Your task to perform on an android device: Open network settings Image 0: 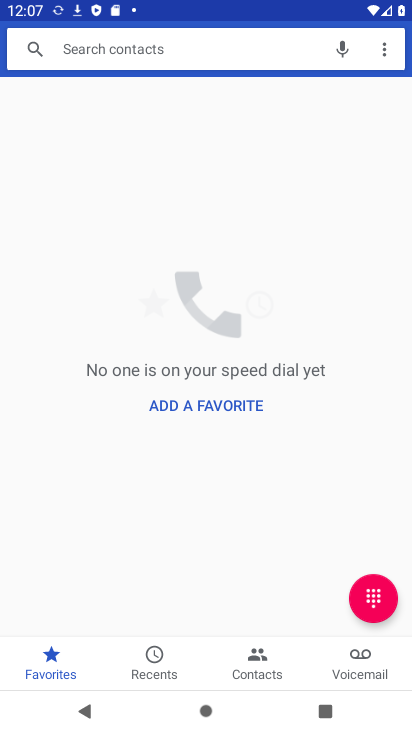
Step 0: press home button
Your task to perform on an android device: Open network settings Image 1: 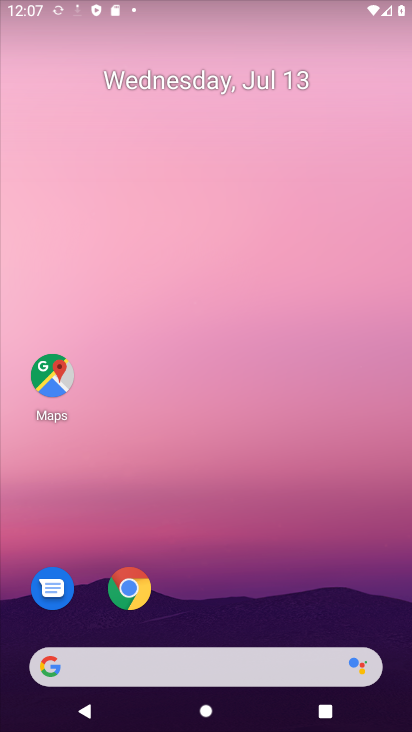
Step 1: drag from (206, 625) to (207, 147)
Your task to perform on an android device: Open network settings Image 2: 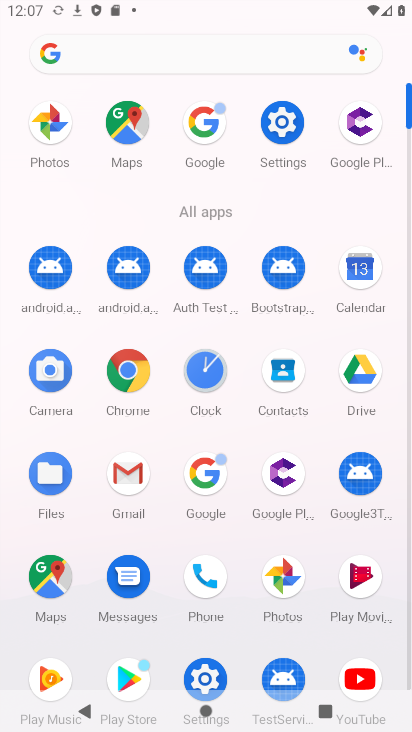
Step 2: click (282, 126)
Your task to perform on an android device: Open network settings Image 3: 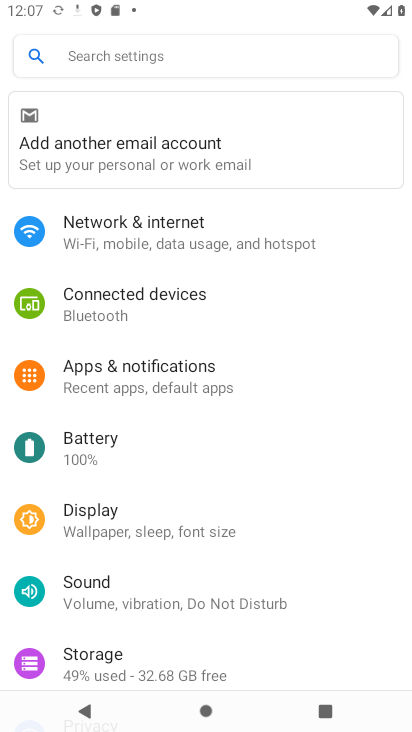
Step 3: click (195, 229)
Your task to perform on an android device: Open network settings Image 4: 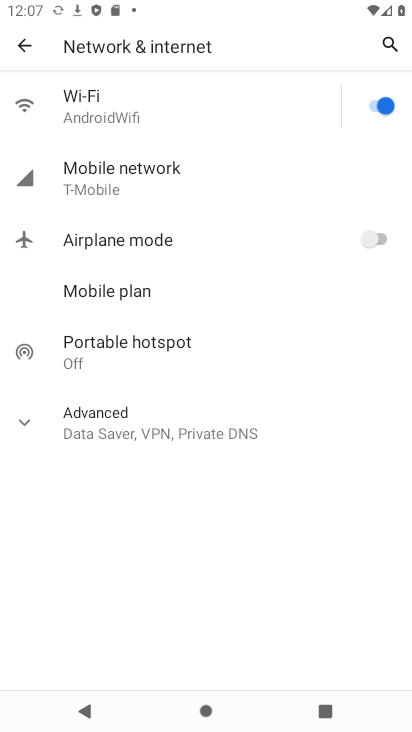
Step 4: click (124, 416)
Your task to perform on an android device: Open network settings Image 5: 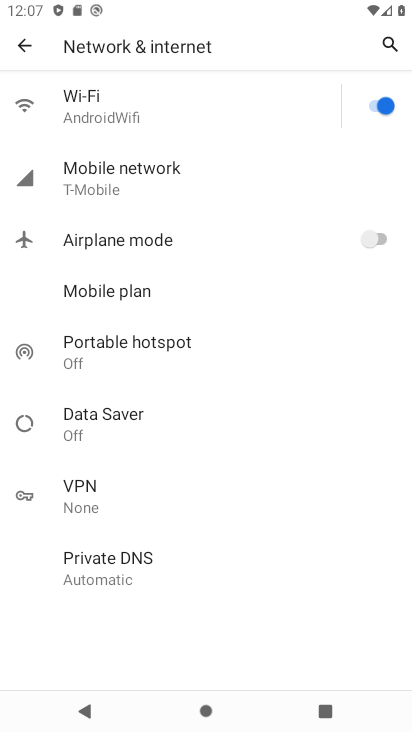
Step 5: task complete